Your task to perform on an android device: Open Chrome and go to the settings page Image 0: 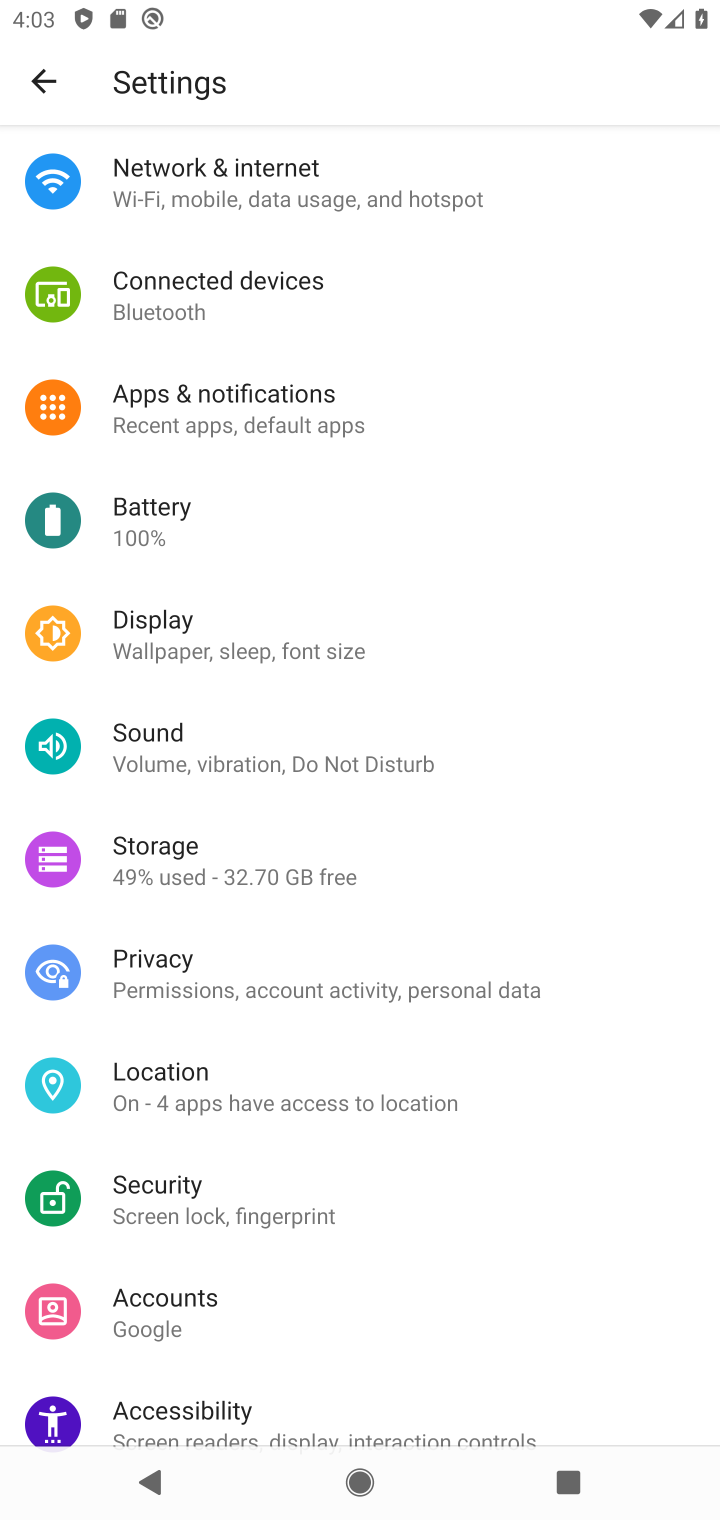
Step 0: press back button
Your task to perform on an android device: Open Chrome and go to the settings page Image 1: 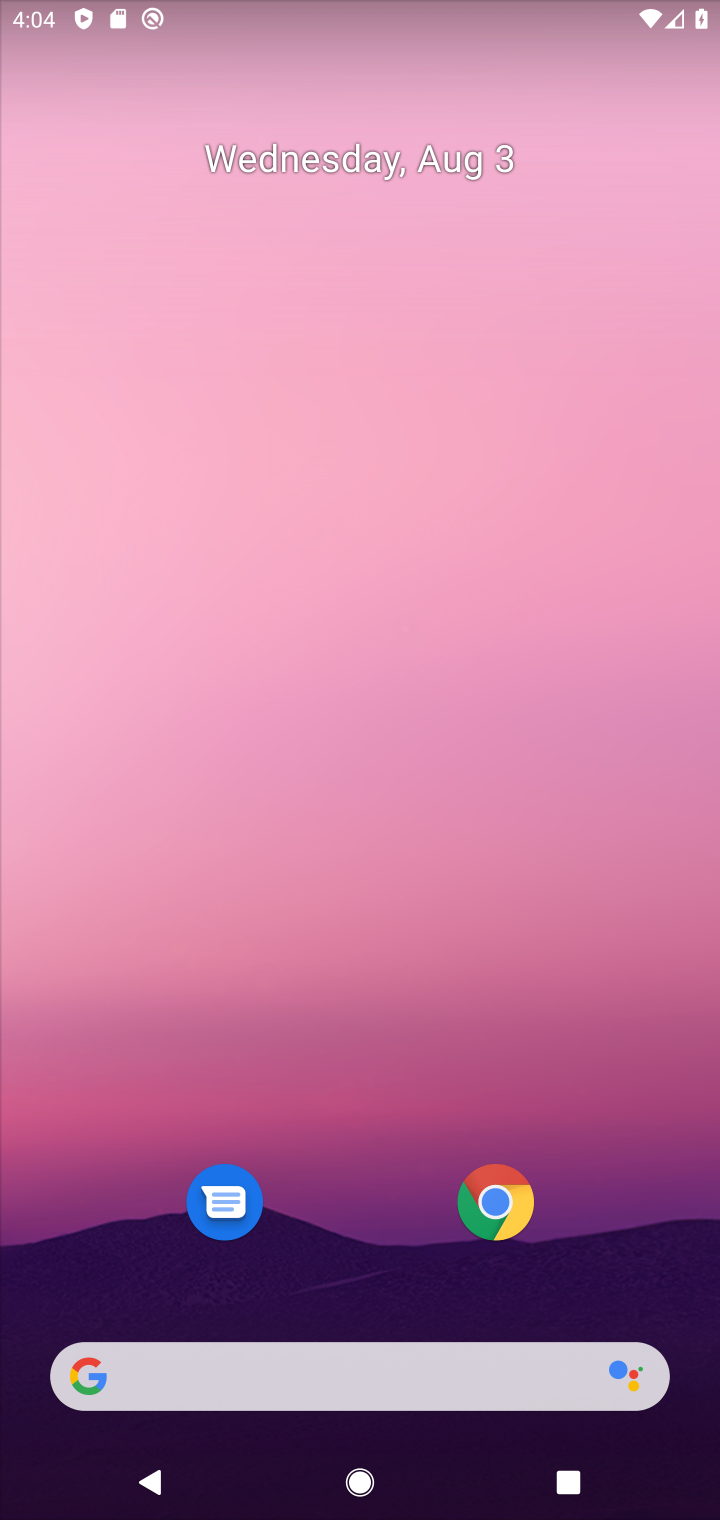
Step 1: click (494, 1213)
Your task to perform on an android device: Open Chrome and go to the settings page Image 2: 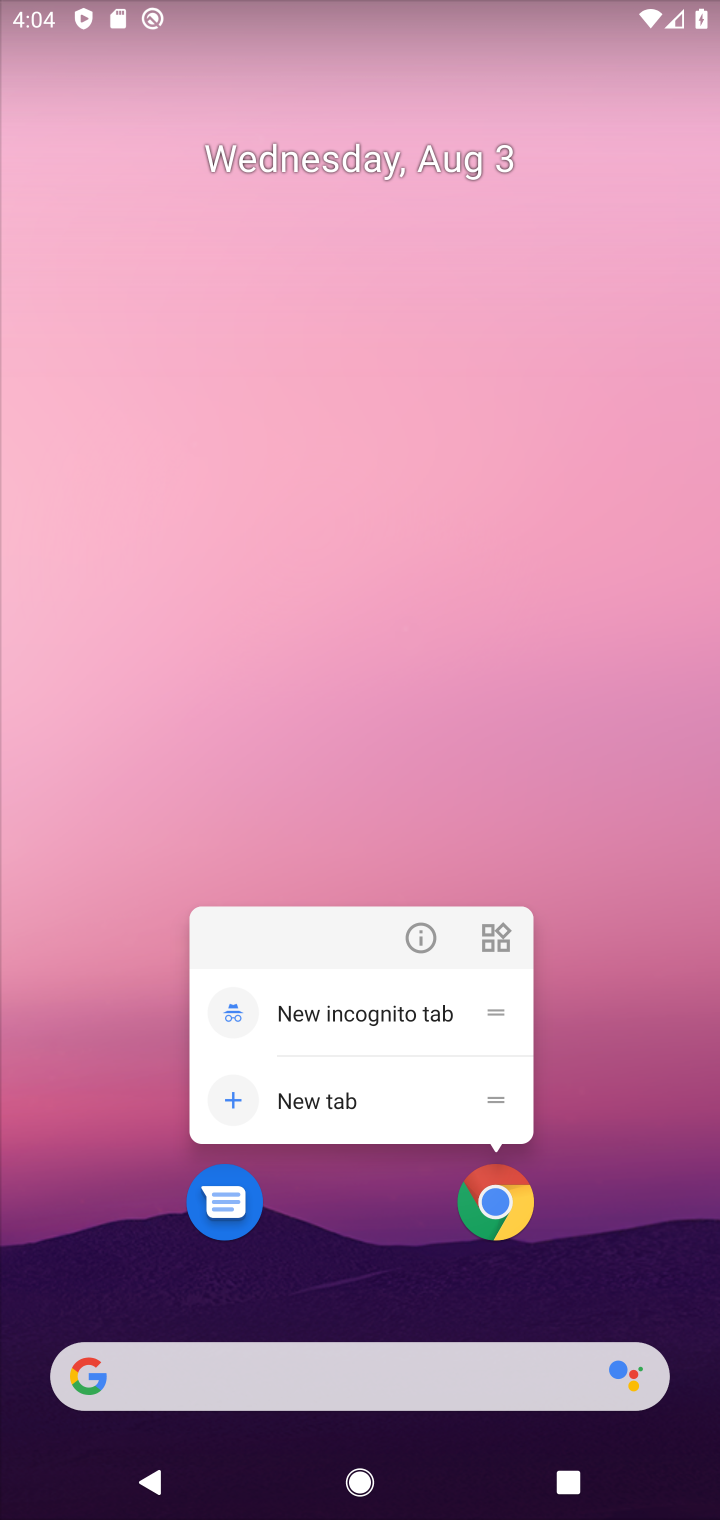
Step 2: click (494, 1183)
Your task to perform on an android device: Open Chrome and go to the settings page Image 3: 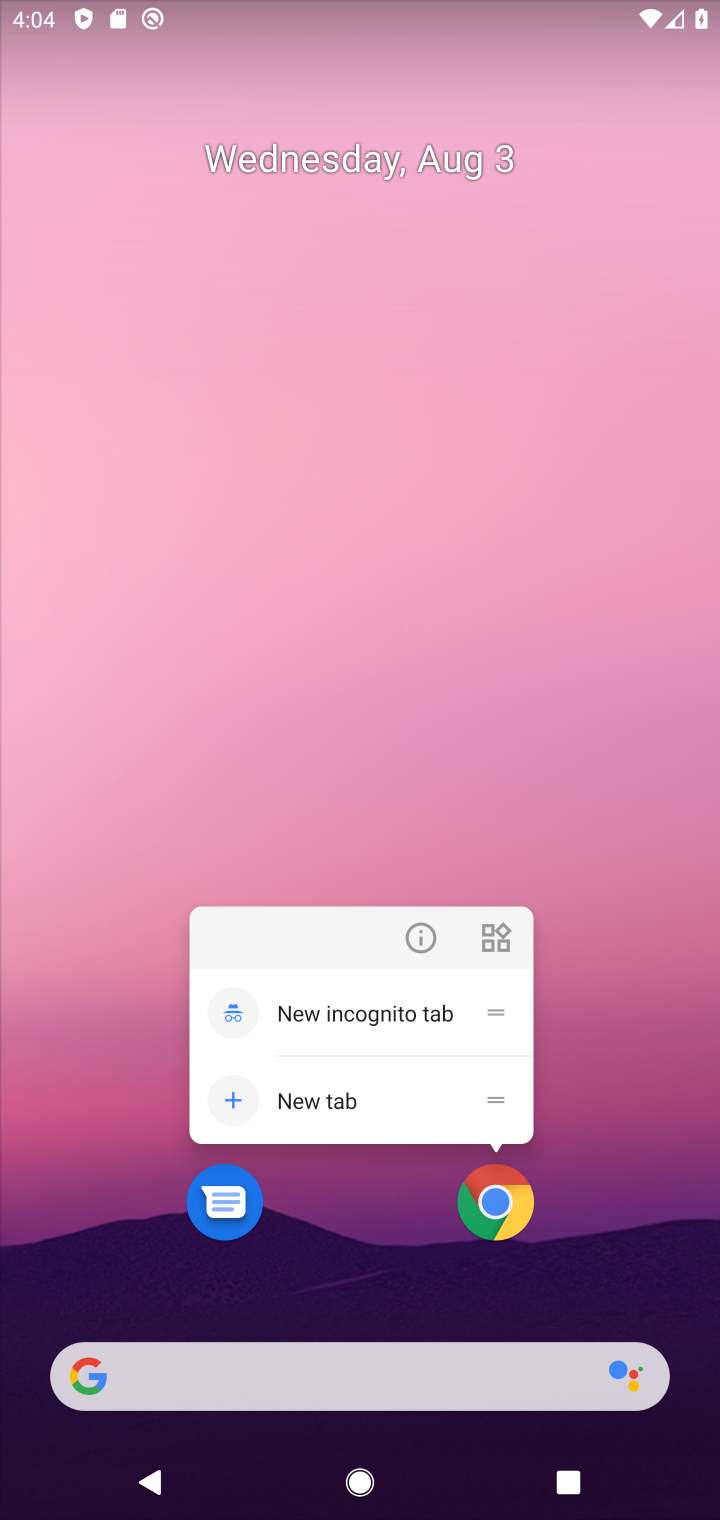
Step 3: click (491, 1208)
Your task to perform on an android device: Open Chrome and go to the settings page Image 4: 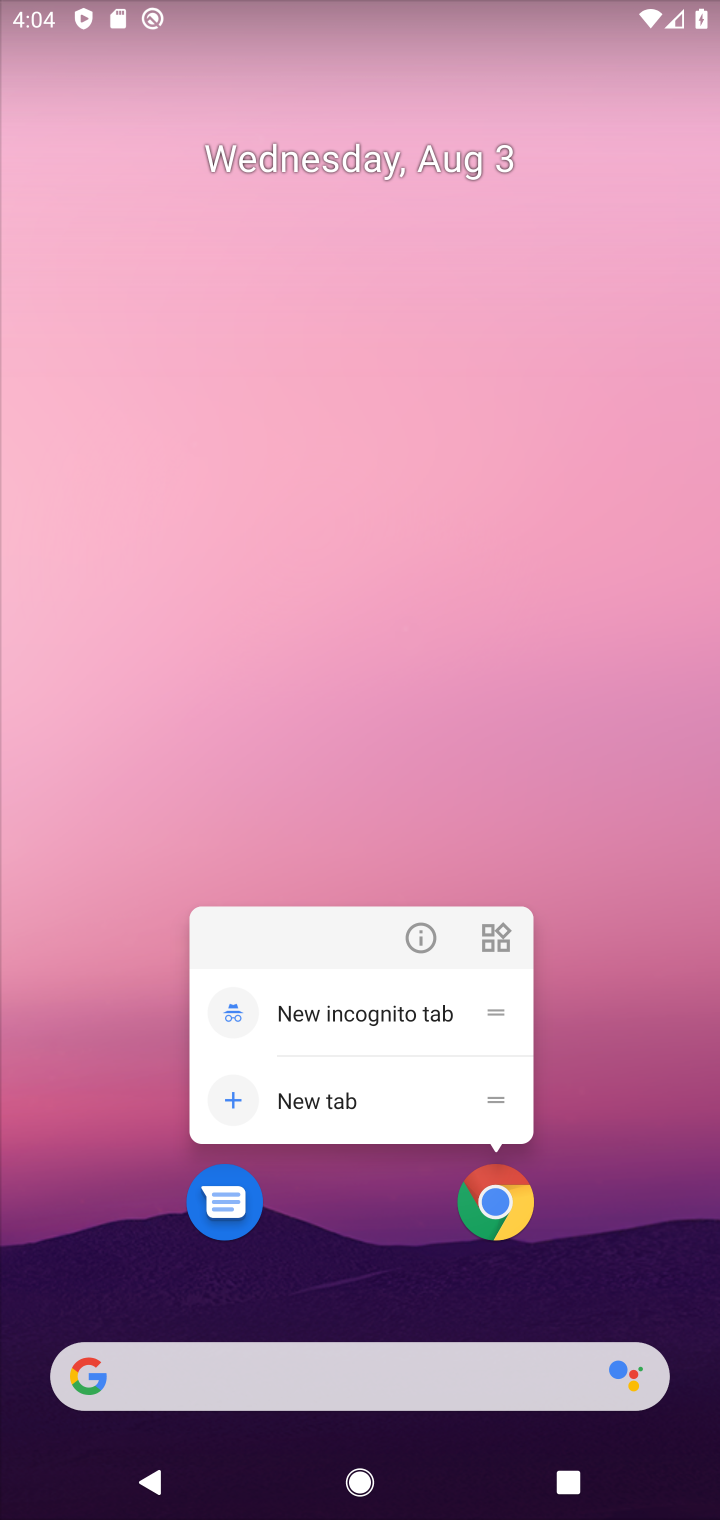
Step 4: click (495, 1227)
Your task to perform on an android device: Open Chrome and go to the settings page Image 5: 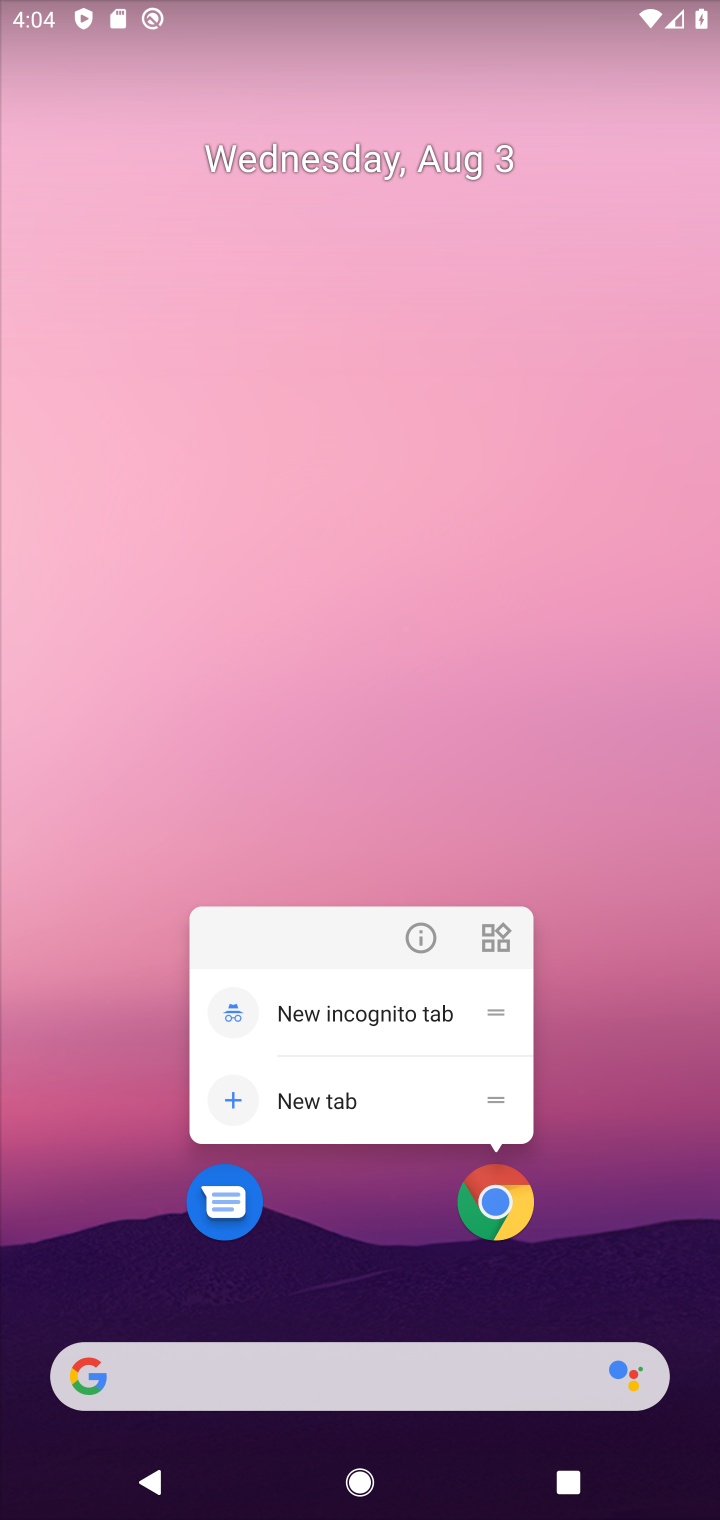
Step 5: click (490, 1229)
Your task to perform on an android device: Open Chrome and go to the settings page Image 6: 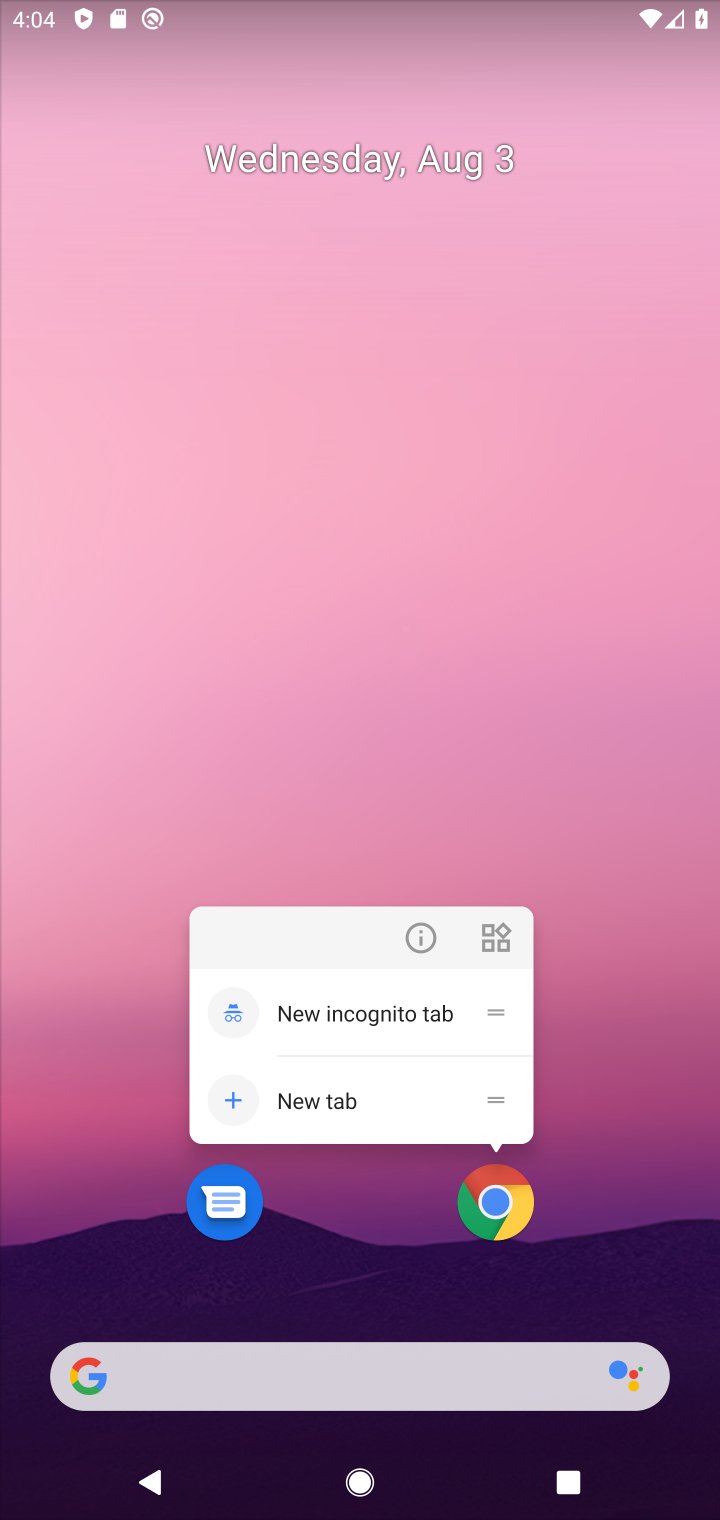
Step 6: click (492, 1199)
Your task to perform on an android device: Open Chrome and go to the settings page Image 7: 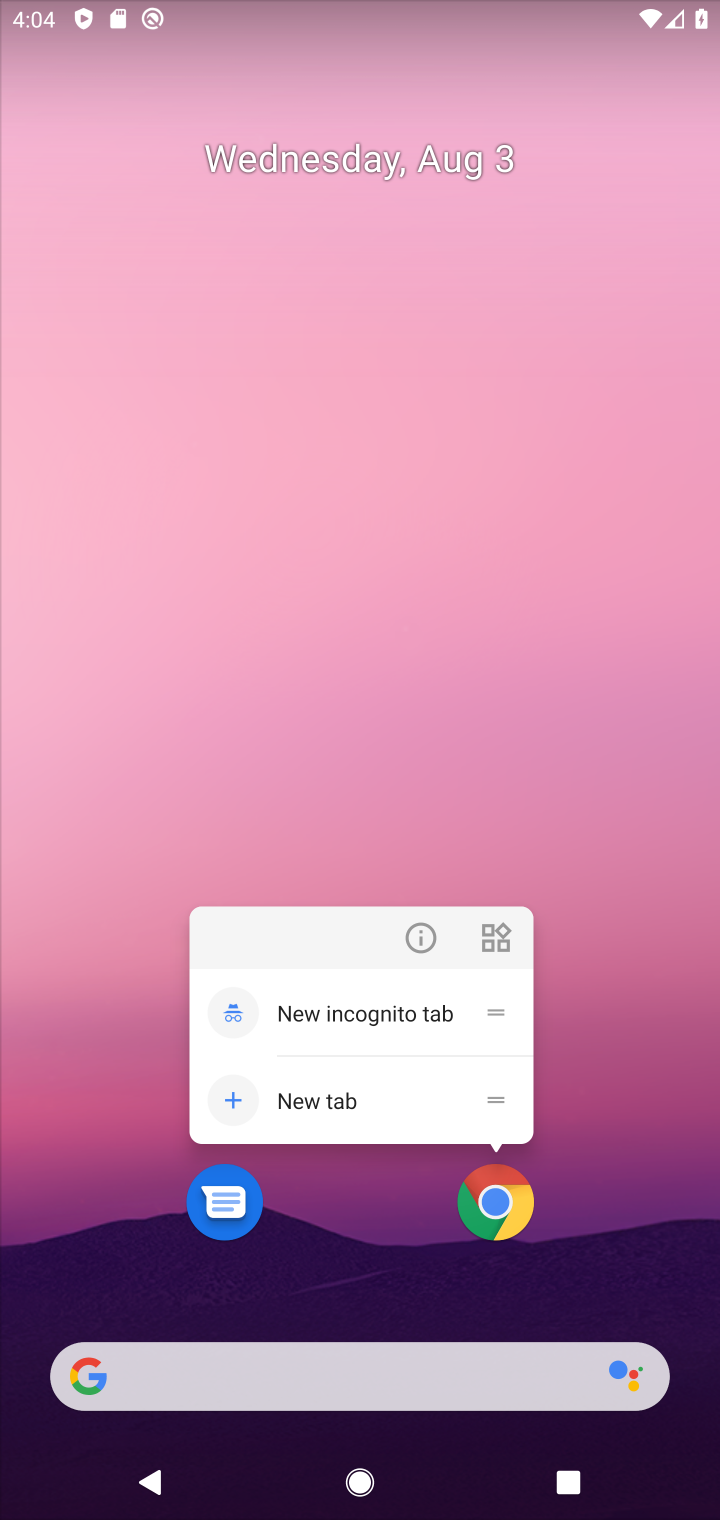
Step 7: click (531, 1207)
Your task to perform on an android device: Open Chrome and go to the settings page Image 8: 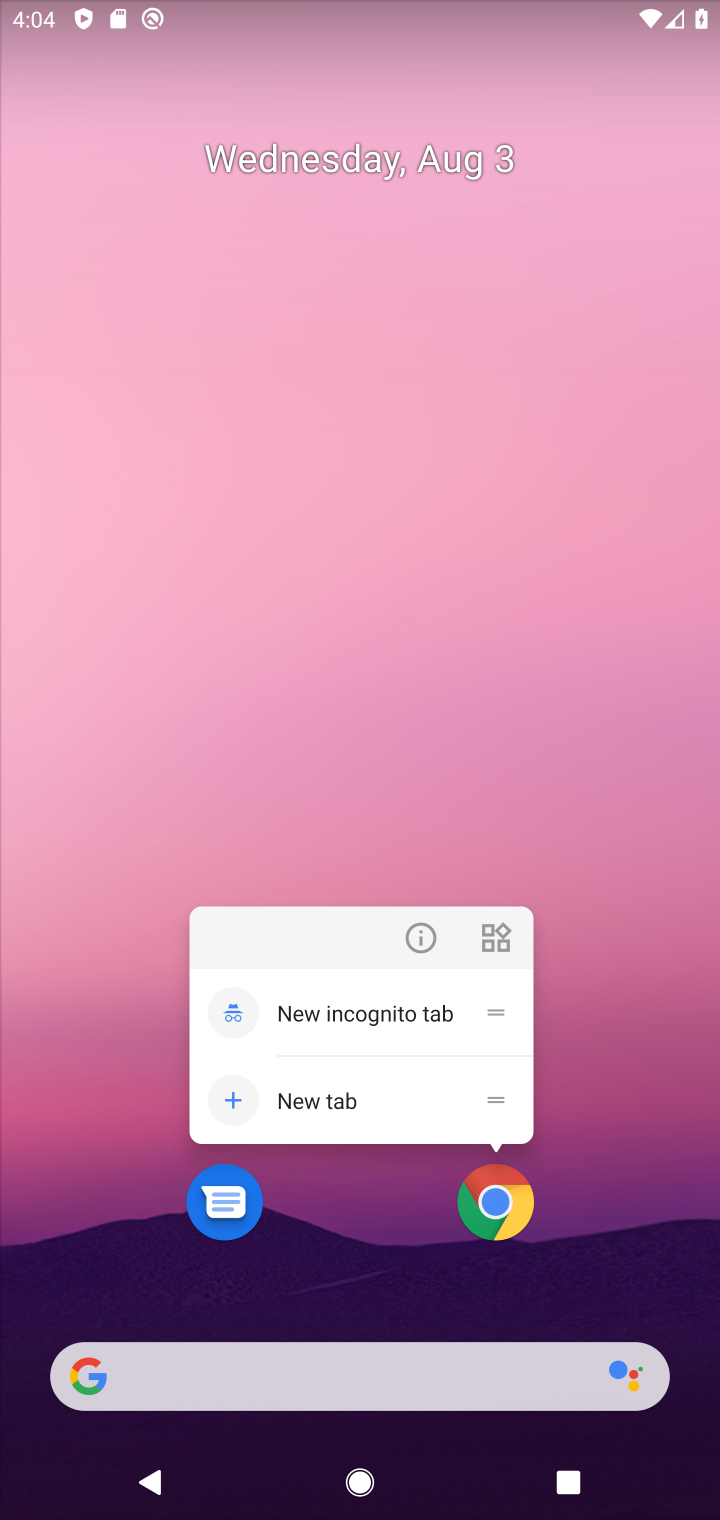
Step 8: click (518, 1180)
Your task to perform on an android device: Open Chrome and go to the settings page Image 9: 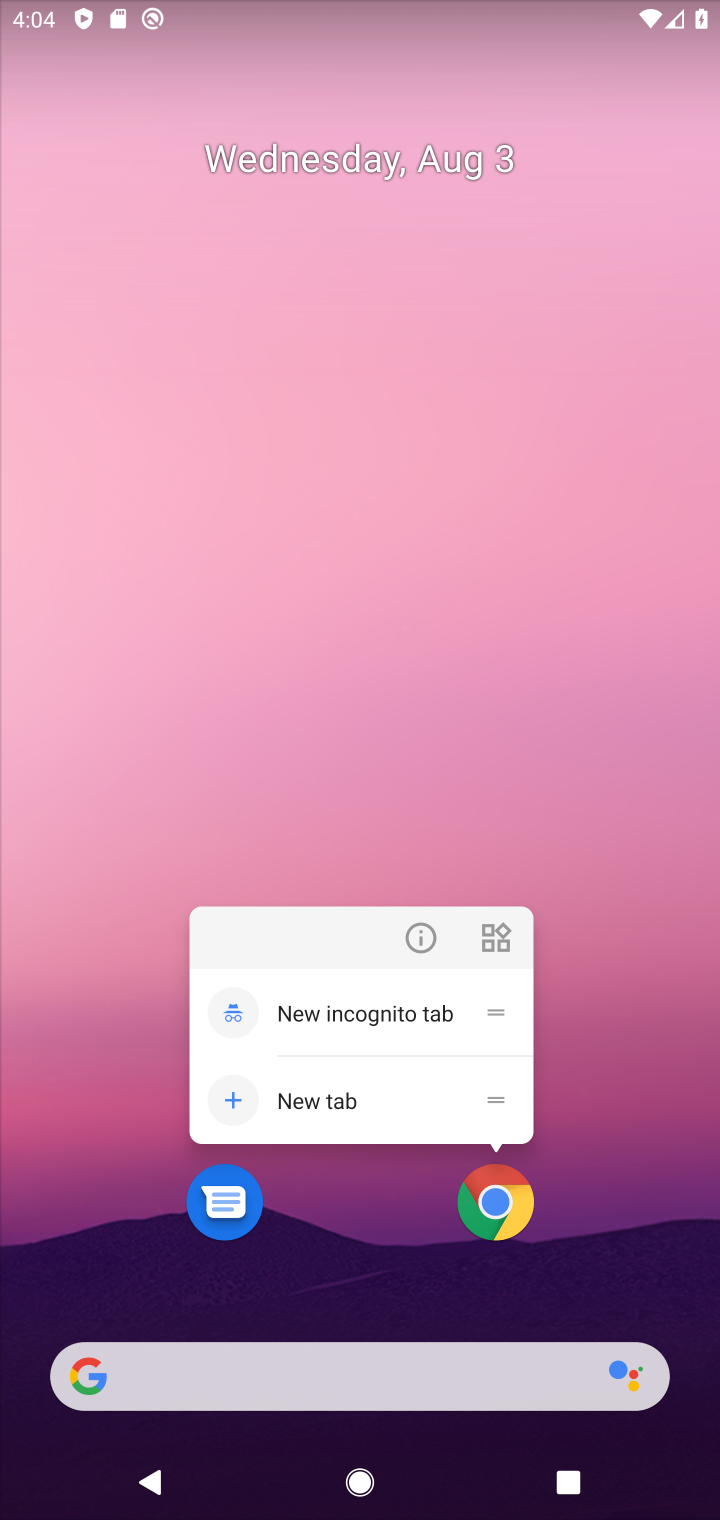
Step 9: click (479, 1193)
Your task to perform on an android device: Open Chrome and go to the settings page Image 10: 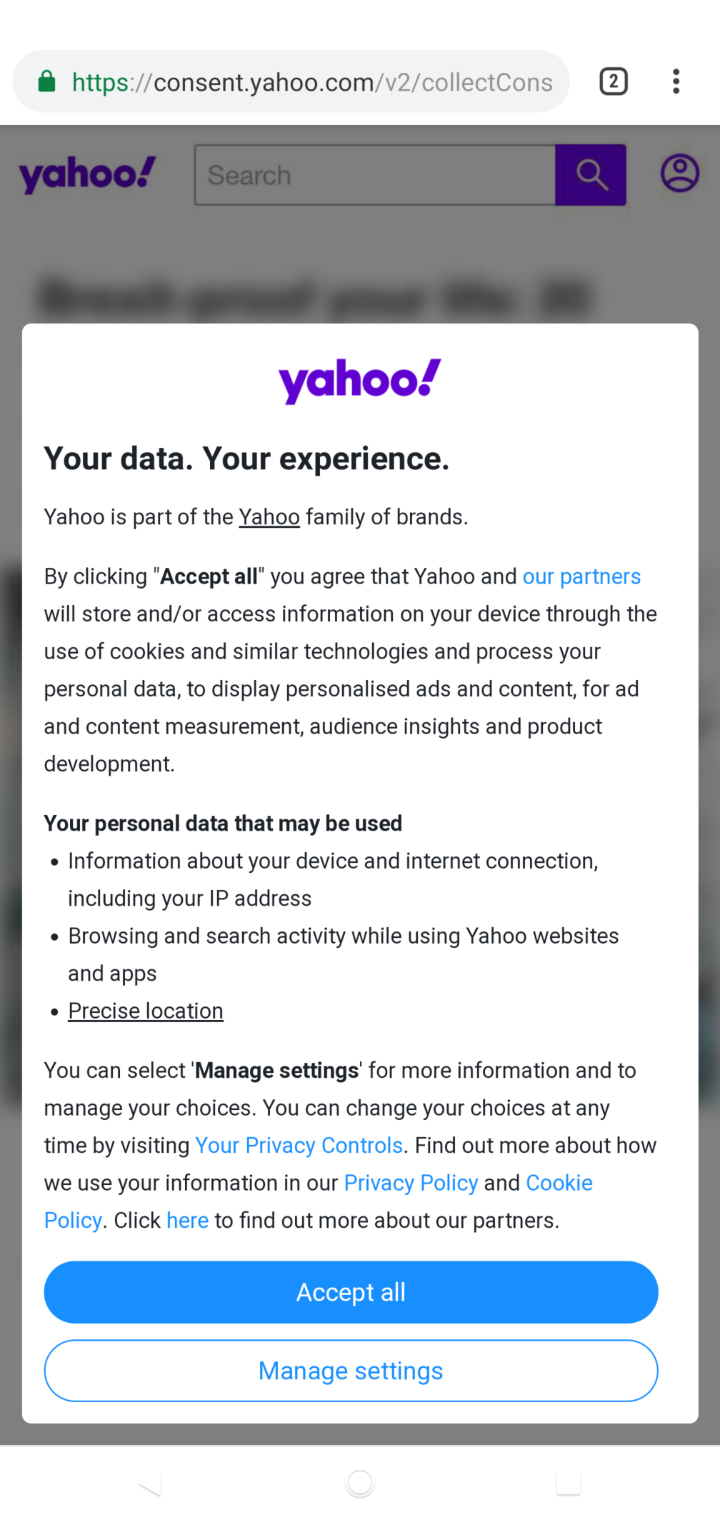
Step 10: click (501, 1209)
Your task to perform on an android device: Open Chrome and go to the settings page Image 11: 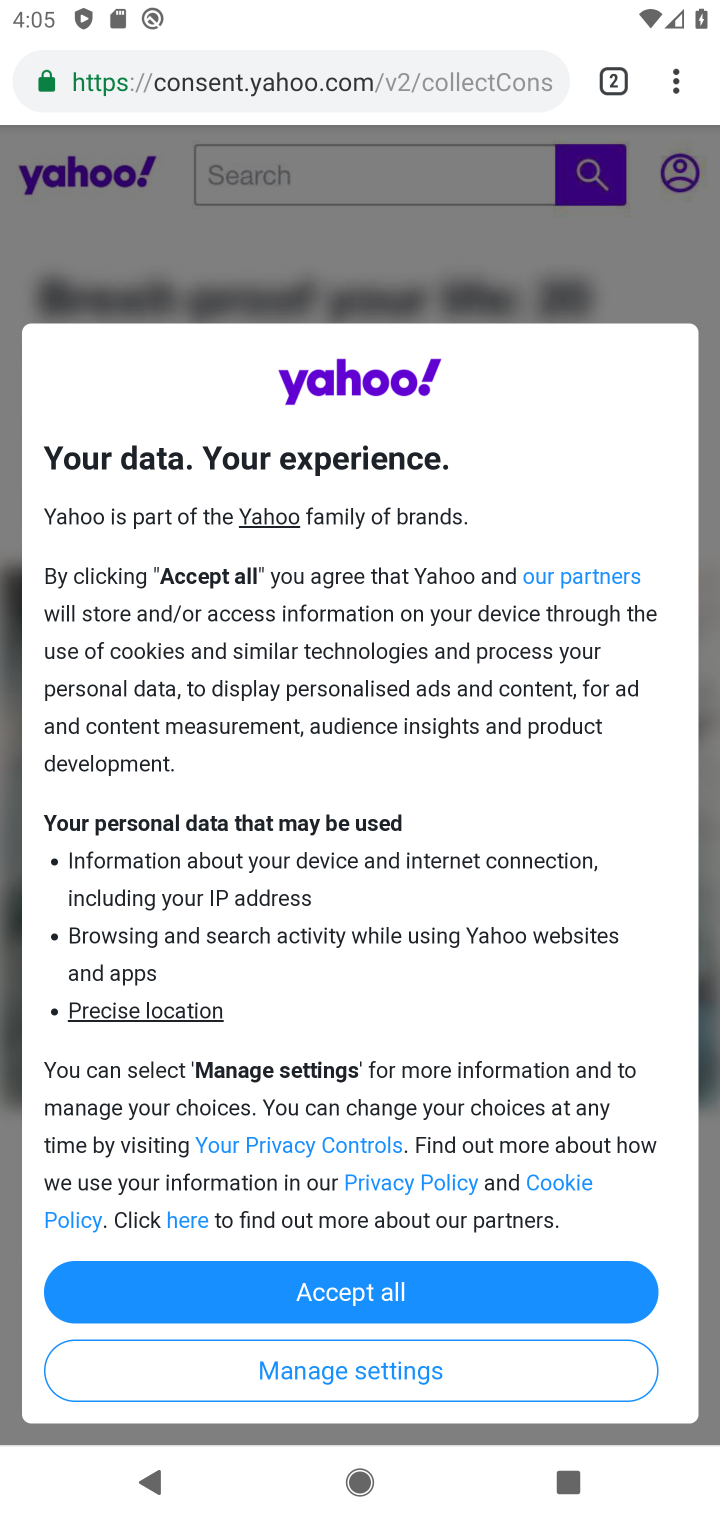
Step 11: task complete